Your task to perform on an android device: Search for sushi restaurants on Maps Image 0: 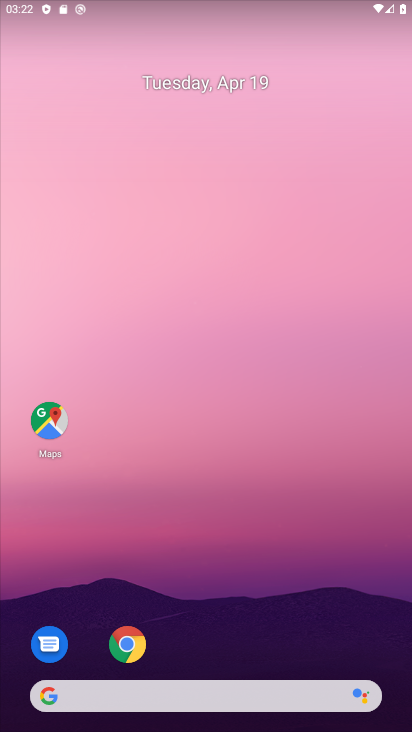
Step 0: click (47, 418)
Your task to perform on an android device: Search for sushi restaurants on Maps Image 1: 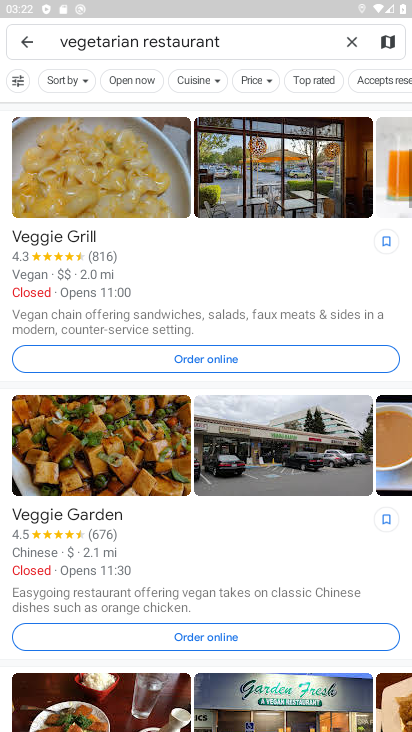
Step 1: click (348, 36)
Your task to perform on an android device: Search for sushi restaurants on Maps Image 2: 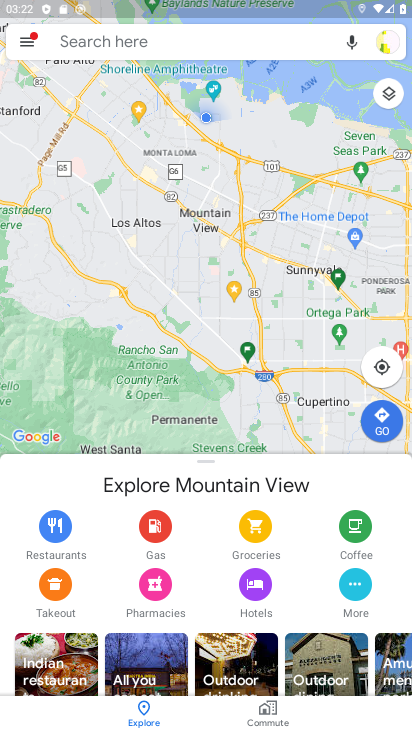
Step 2: click (106, 35)
Your task to perform on an android device: Search for sushi restaurants on Maps Image 3: 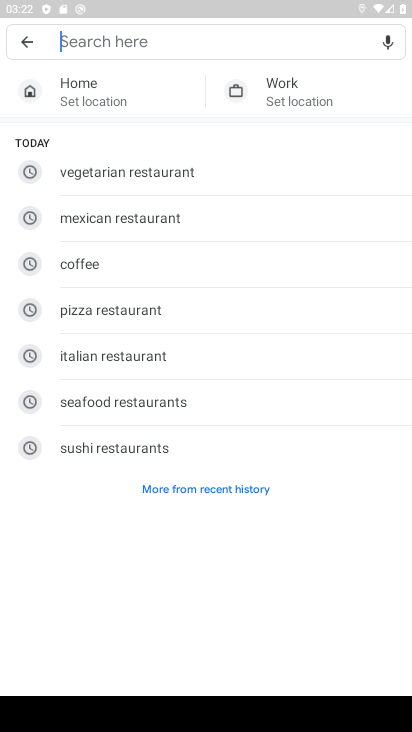
Step 3: type "sushi restaurants"
Your task to perform on an android device: Search for sushi restaurants on Maps Image 4: 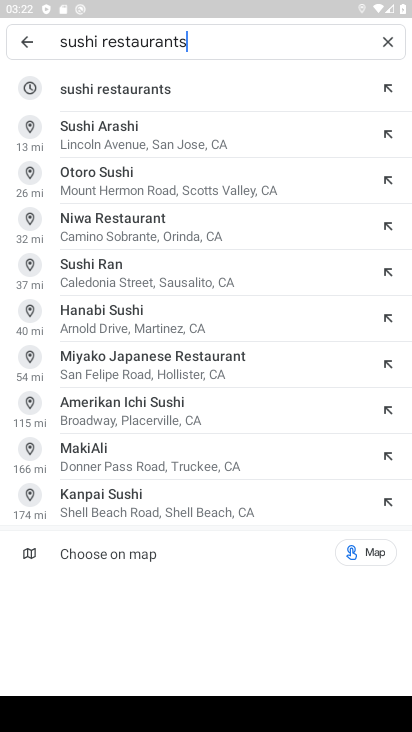
Step 4: click (146, 91)
Your task to perform on an android device: Search for sushi restaurants on Maps Image 5: 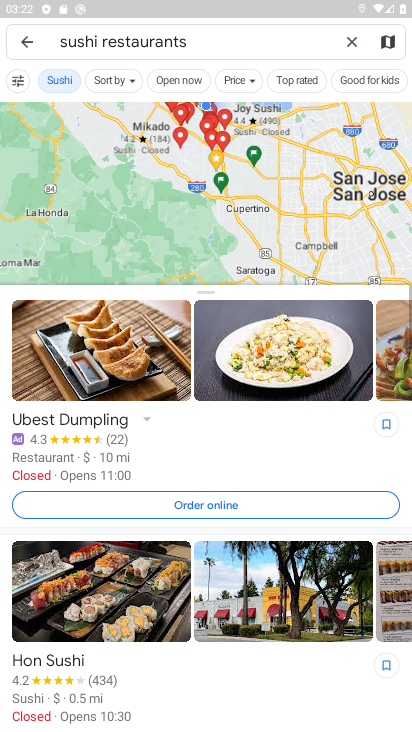
Step 5: task complete